Your task to perform on an android device: remove spam from my inbox in the gmail app Image 0: 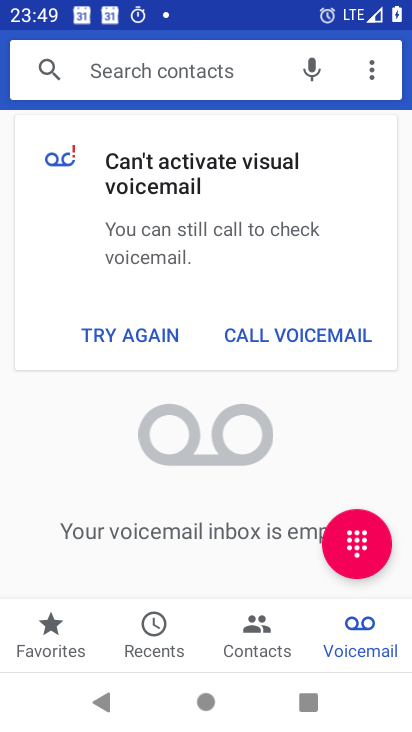
Step 0: press home button
Your task to perform on an android device: remove spam from my inbox in the gmail app Image 1: 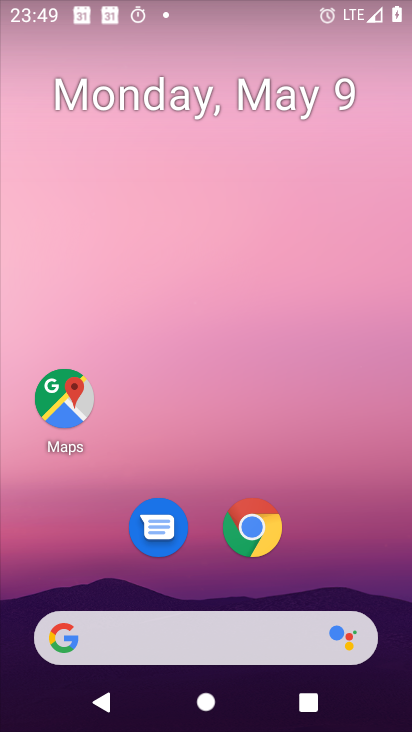
Step 1: drag from (212, 581) to (233, 96)
Your task to perform on an android device: remove spam from my inbox in the gmail app Image 2: 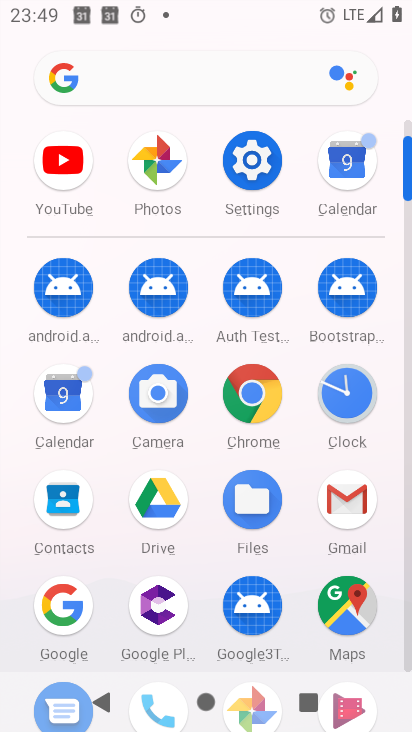
Step 2: click (343, 502)
Your task to perform on an android device: remove spam from my inbox in the gmail app Image 3: 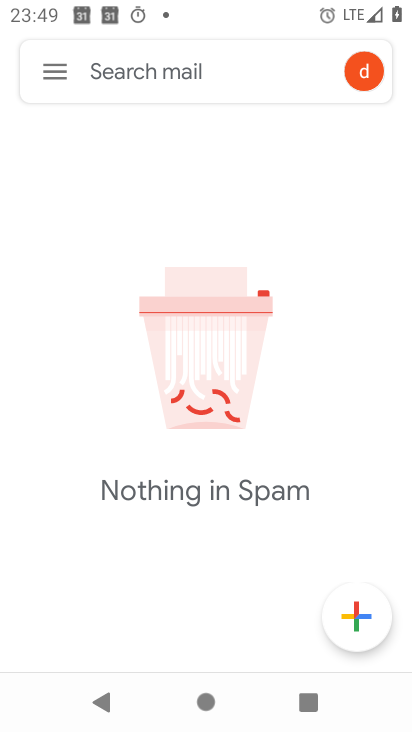
Step 3: click (44, 74)
Your task to perform on an android device: remove spam from my inbox in the gmail app Image 4: 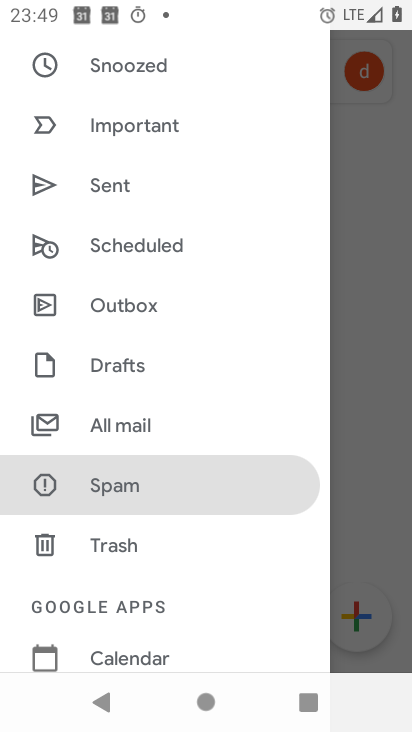
Step 4: task complete